Your task to perform on an android device: Open display settings Image 0: 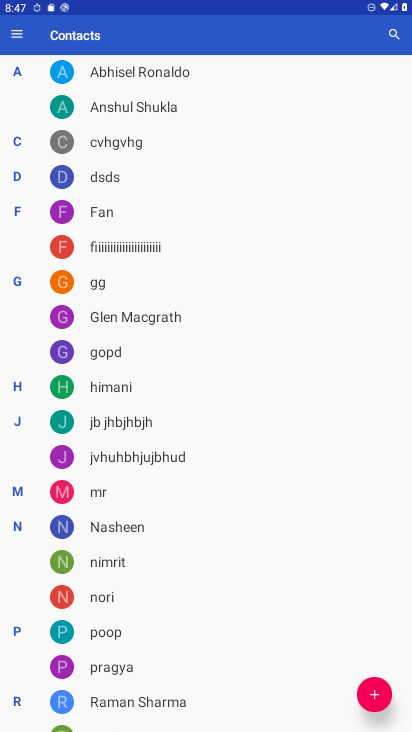
Step 0: press home button
Your task to perform on an android device: Open display settings Image 1: 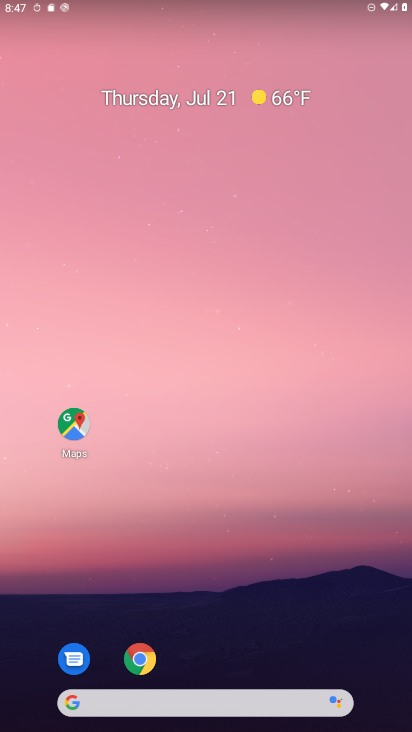
Step 1: drag from (177, 650) to (257, 88)
Your task to perform on an android device: Open display settings Image 2: 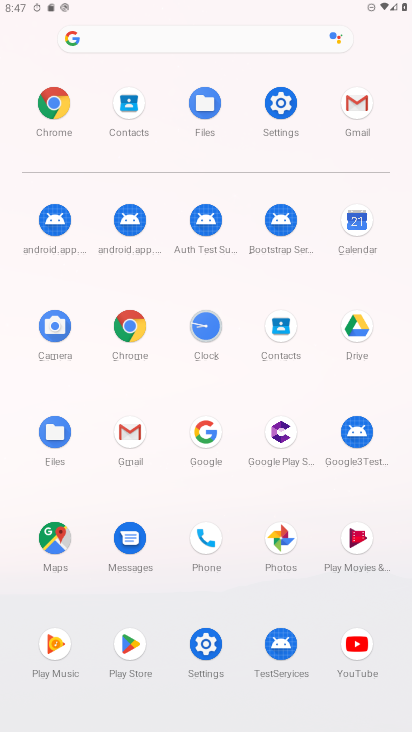
Step 2: click (201, 649)
Your task to perform on an android device: Open display settings Image 3: 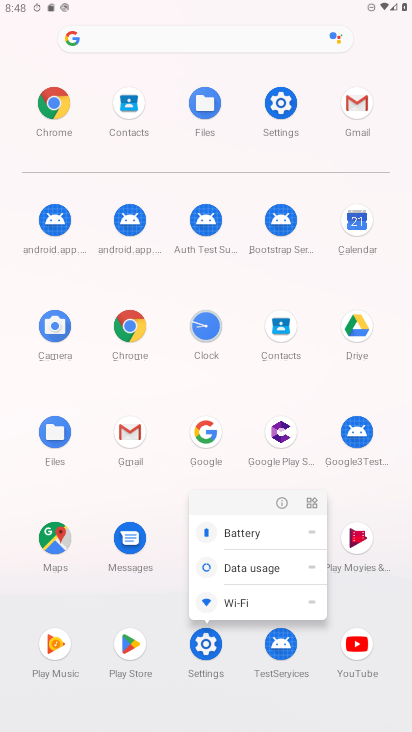
Step 3: click (278, 499)
Your task to perform on an android device: Open display settings Image 4: 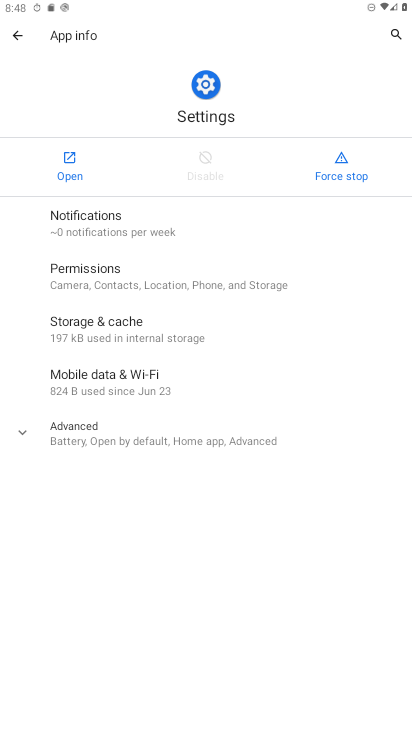
Step 4: click (58, 174)
Your task to perform on an android device: Open display settings Image 5: 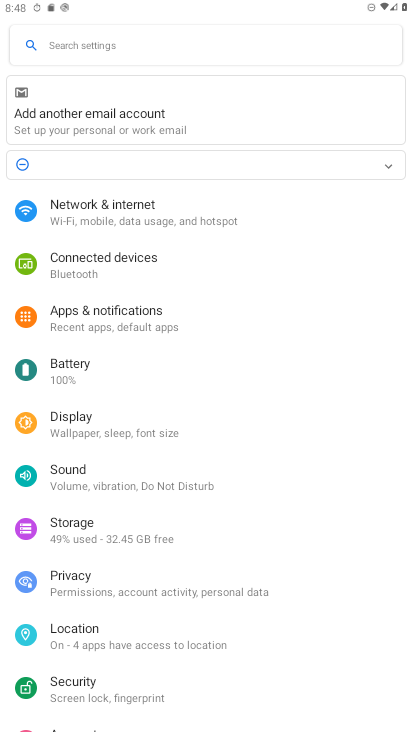
Step 5: click (106, 427)
Your task to perform on an android device: Open display settings Image 6: 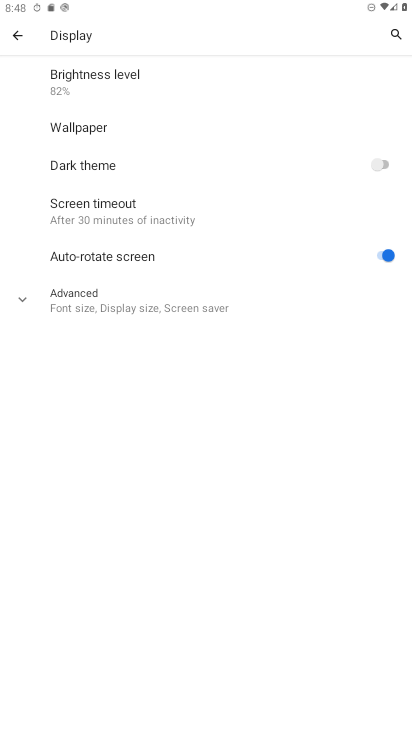
Step 6: task complete